Your task to perform on an android device: snooze an email in the gmail app Image 0: 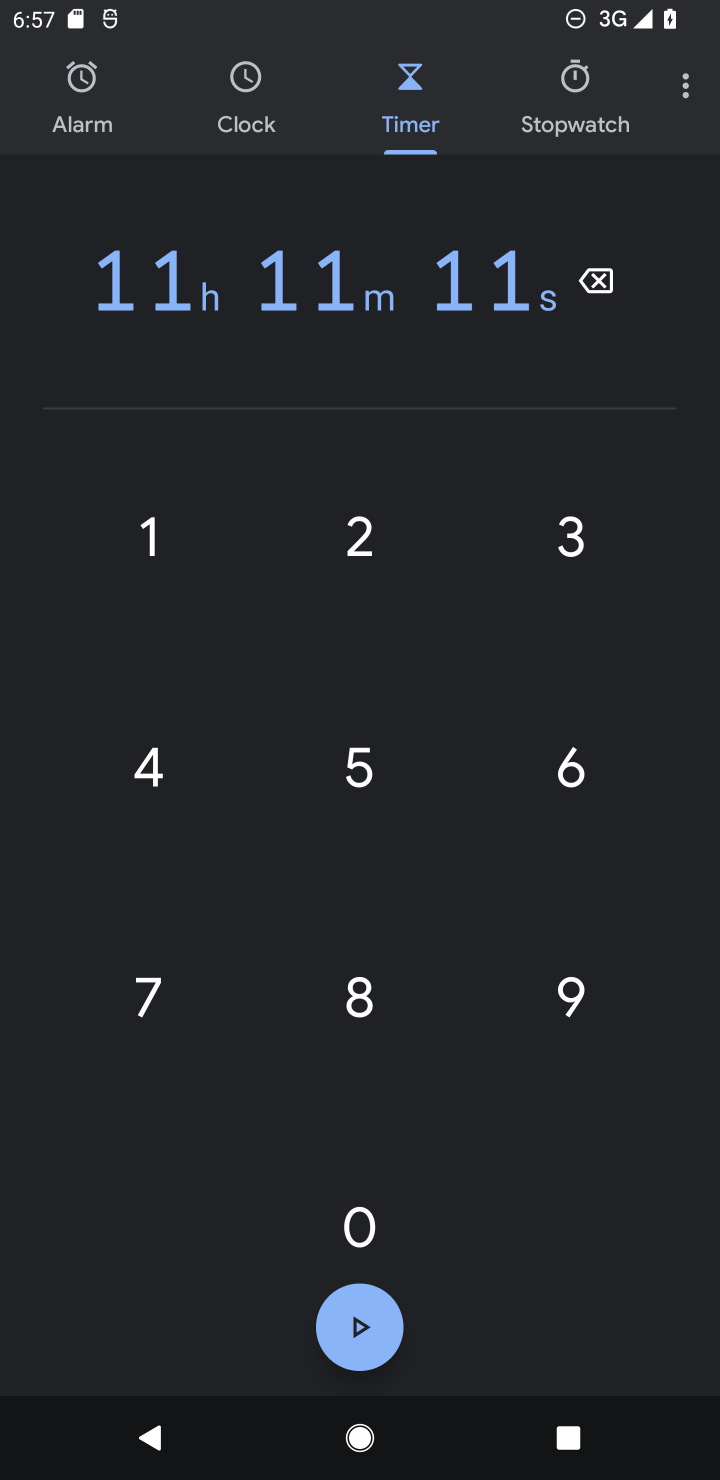
Step 0: press home button
Your task to perform on an android device: snooze an email in the gmail app Image 1: 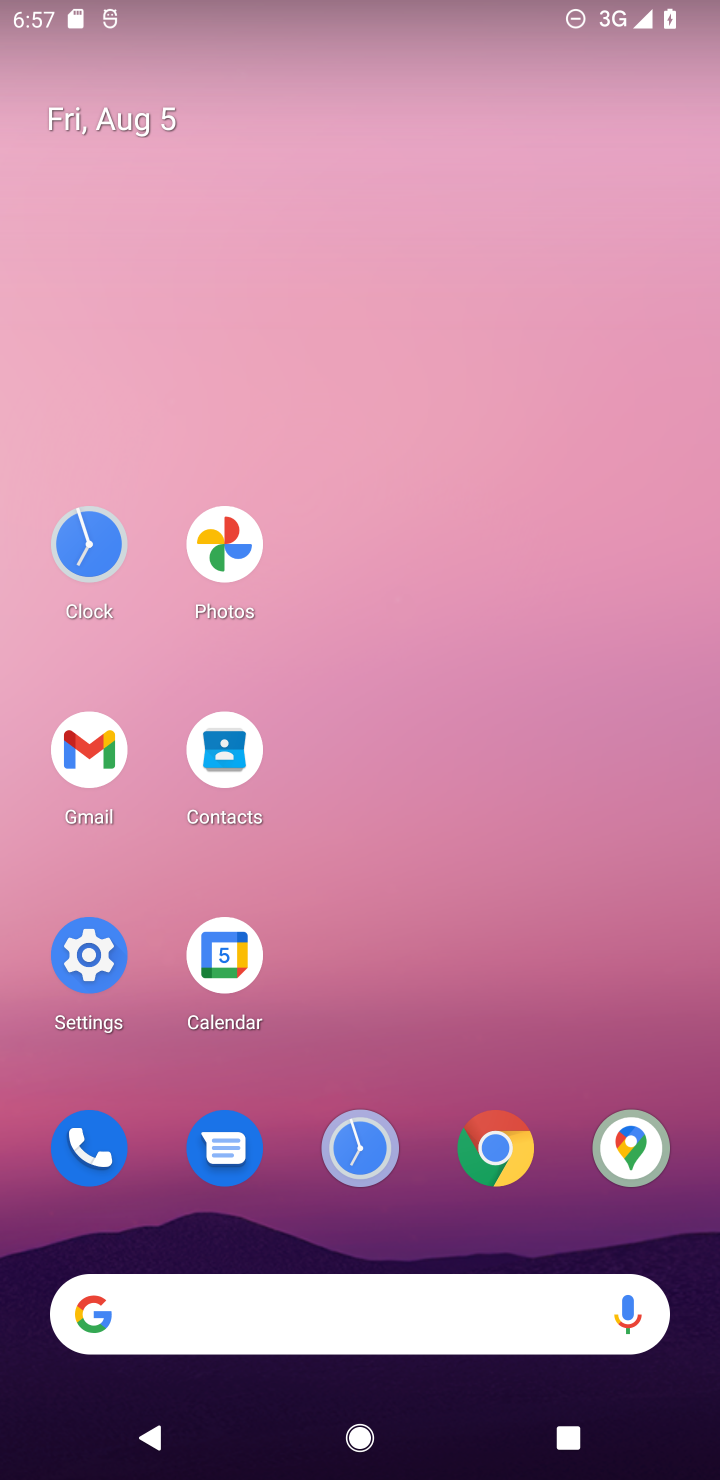
Step 1: click (94, 752)
Your task to perform on an android device: snooze an email in the gmail app Image 2: 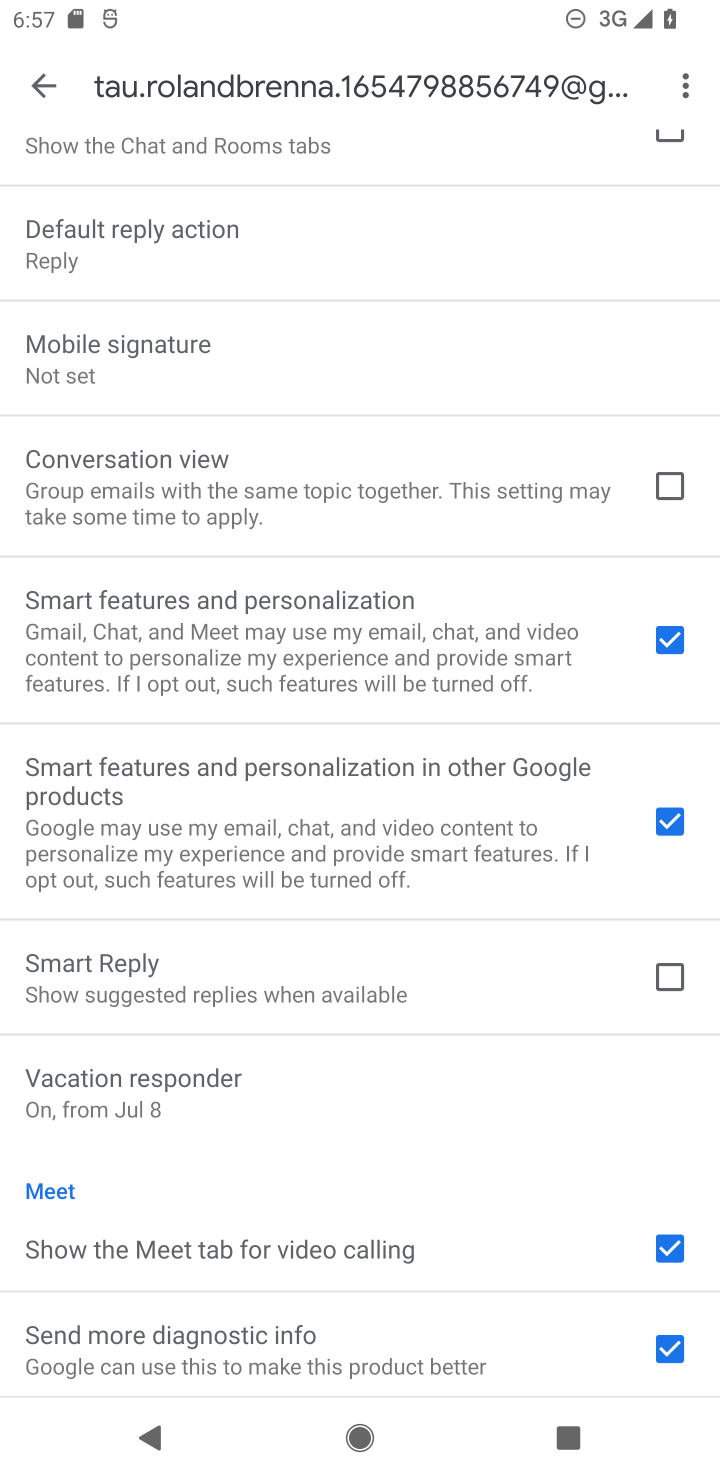
Step 2: click (36, 80)
Your task to perform on an android device: snooze an email in the gmail app Image 3: 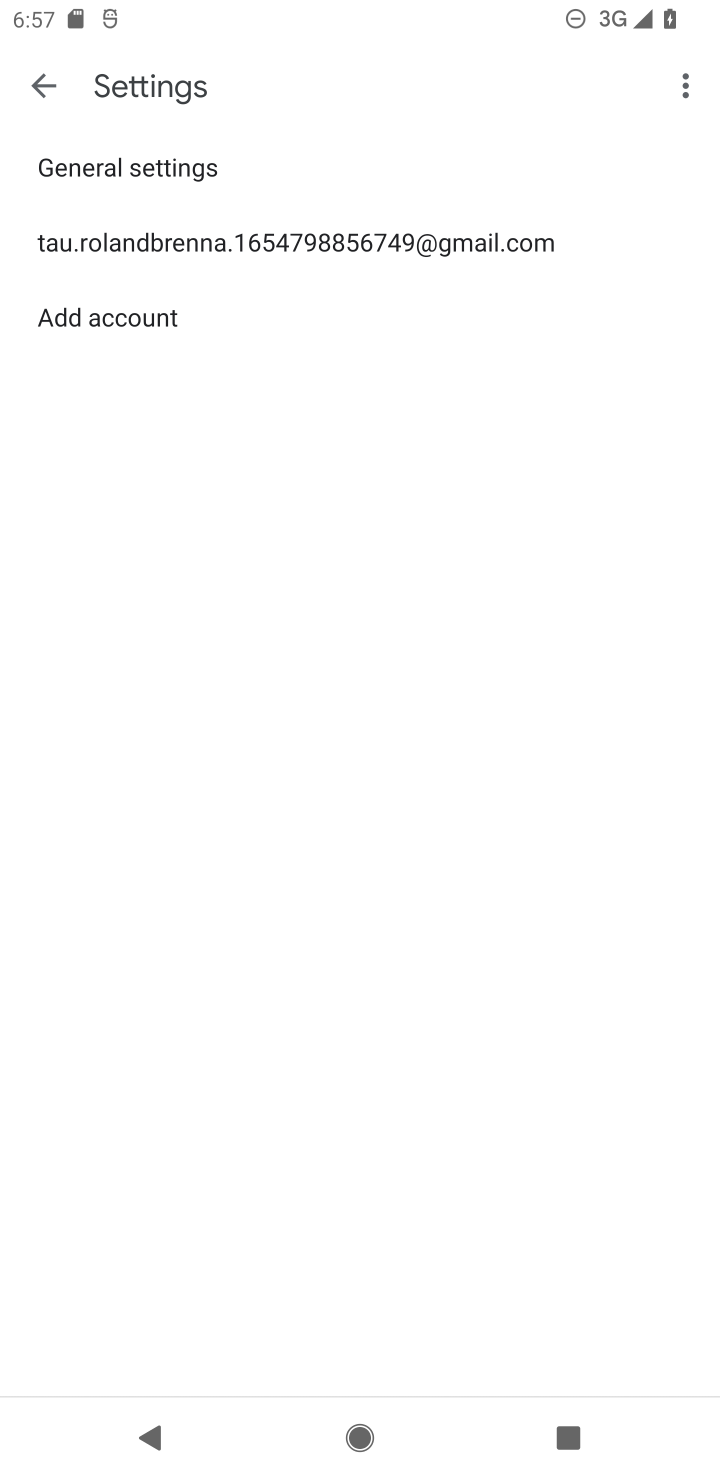
Step 3: click (48, 77)
Your task to perform on an android device: snooze an email in the gmail app Image 4: 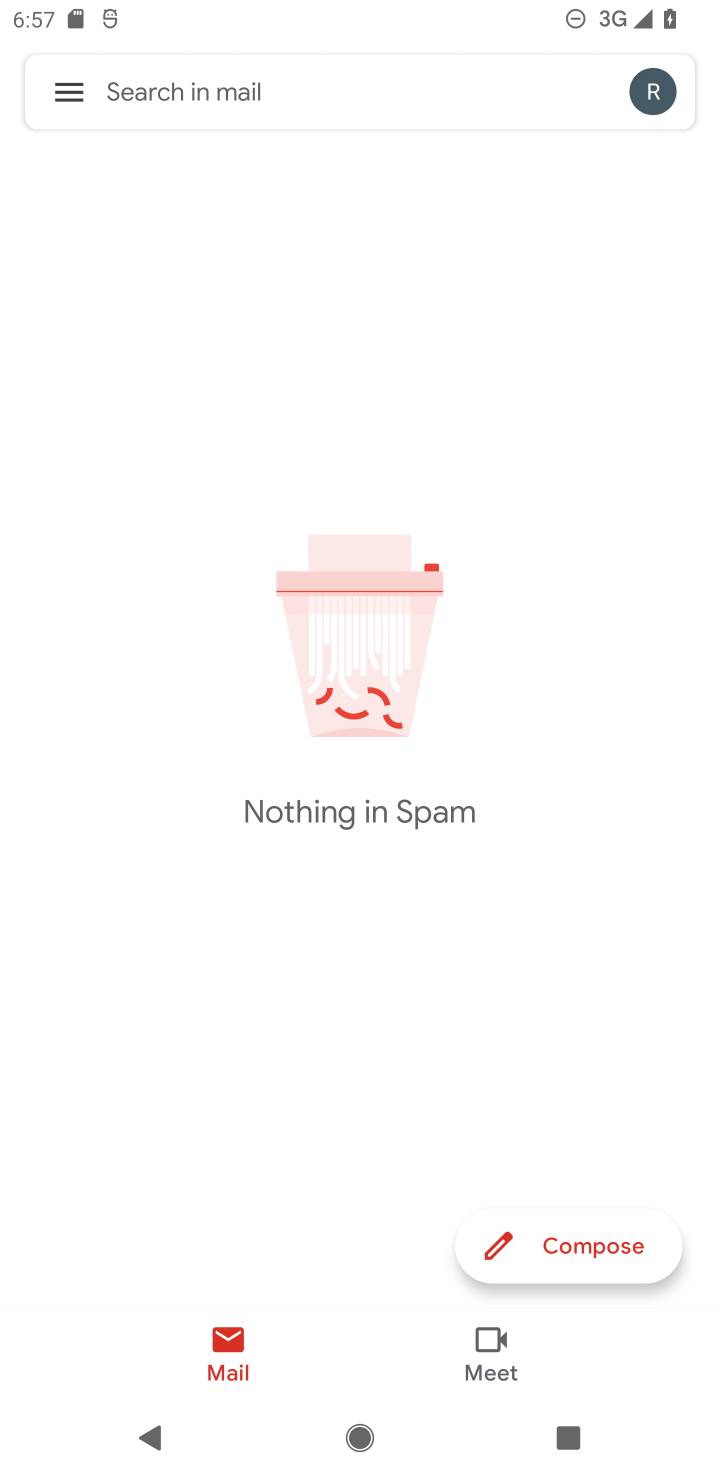
Step 4: click (63, 82)
Your task to perform on an android device: snooze an email in the gmail app Image 5: 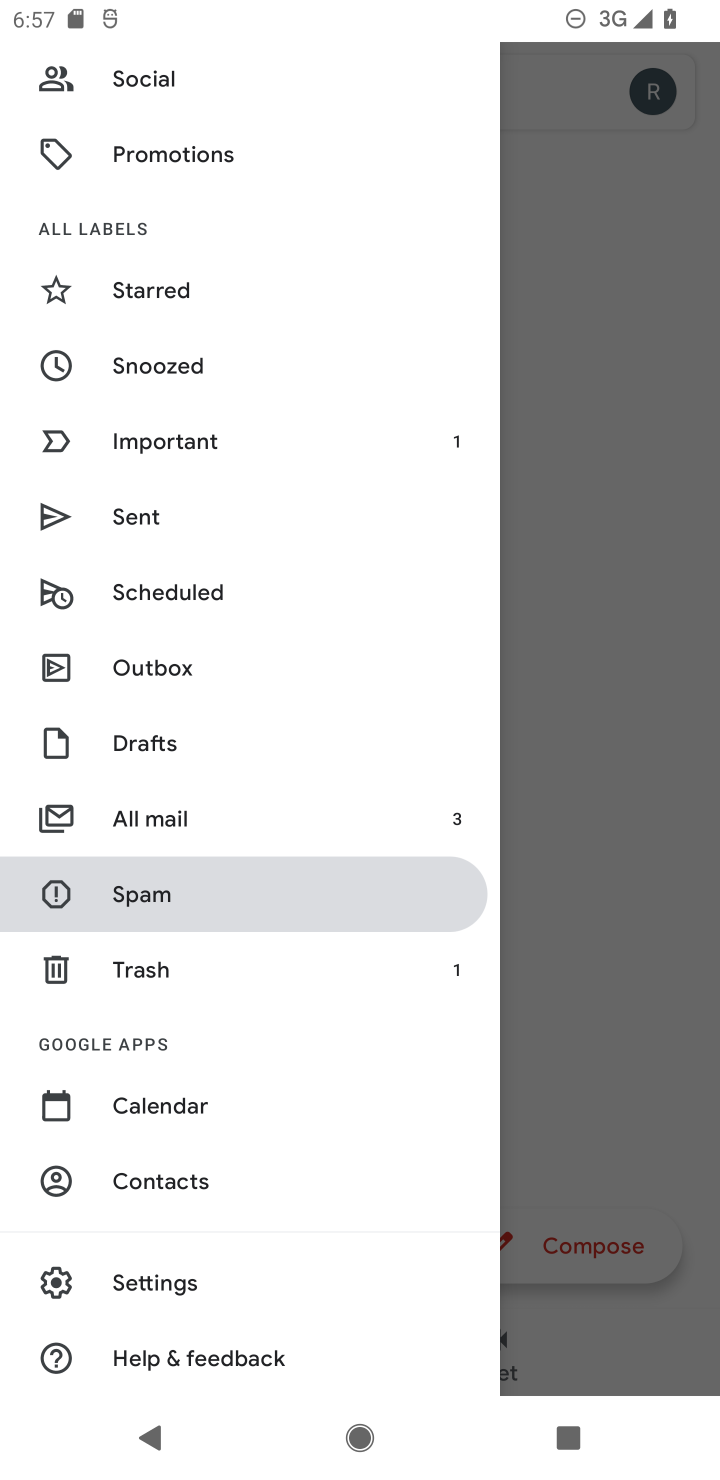
Step 5: click (186, 822)
Your task to perform on an android device: snooze an email in the gmail app Image 6: 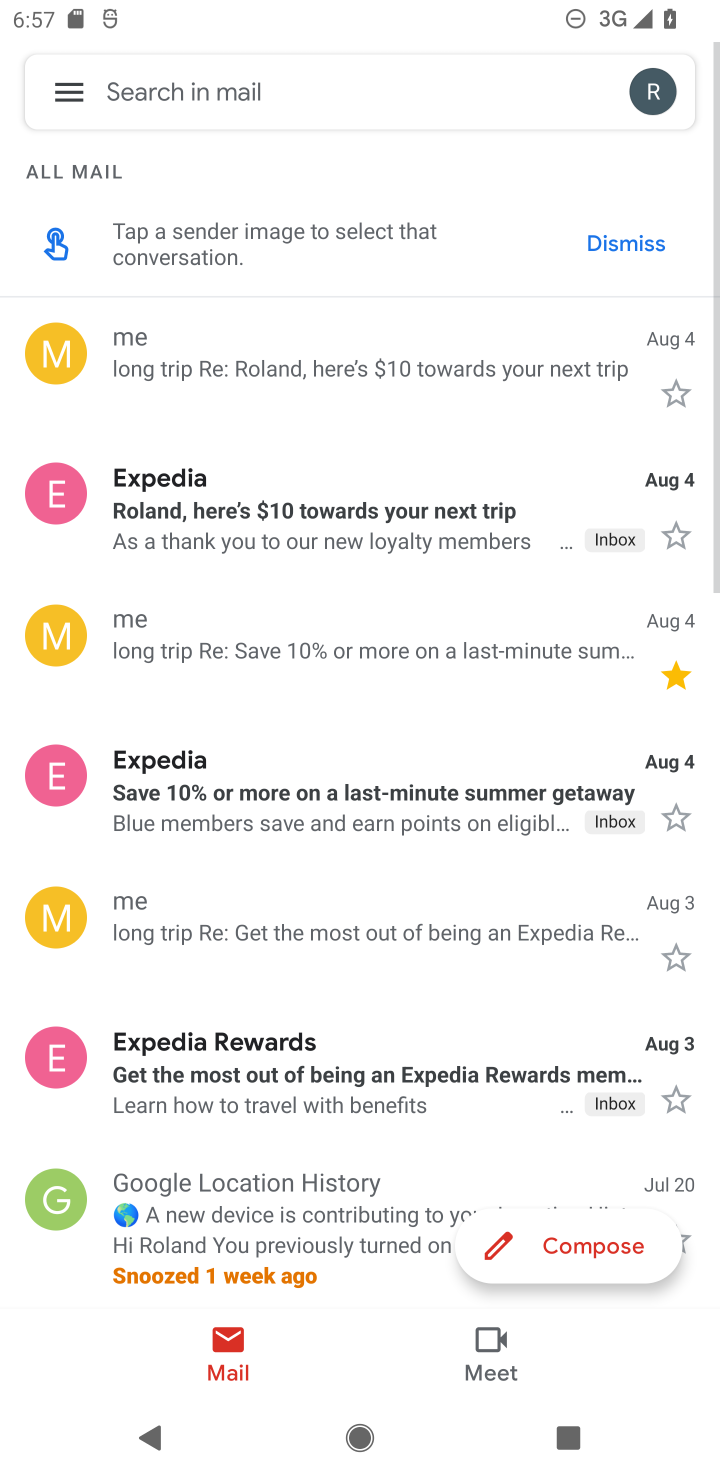
Step 6: click (451, 488)
Your task to perform on an android device: snooze an email in the gmail app Image 7: 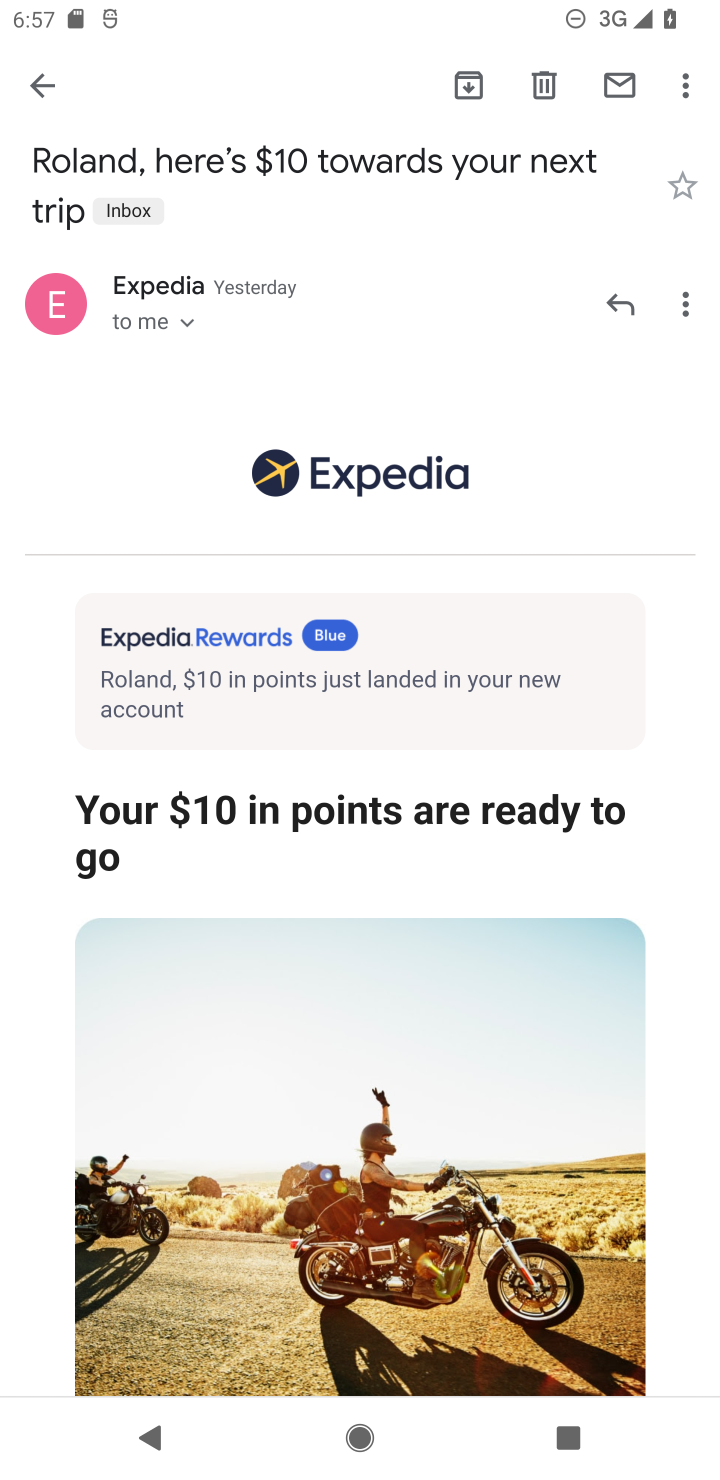
Step 7: click (682, 76)
Your task to perform on an android device: snooze an email in the gmail app Image 8: 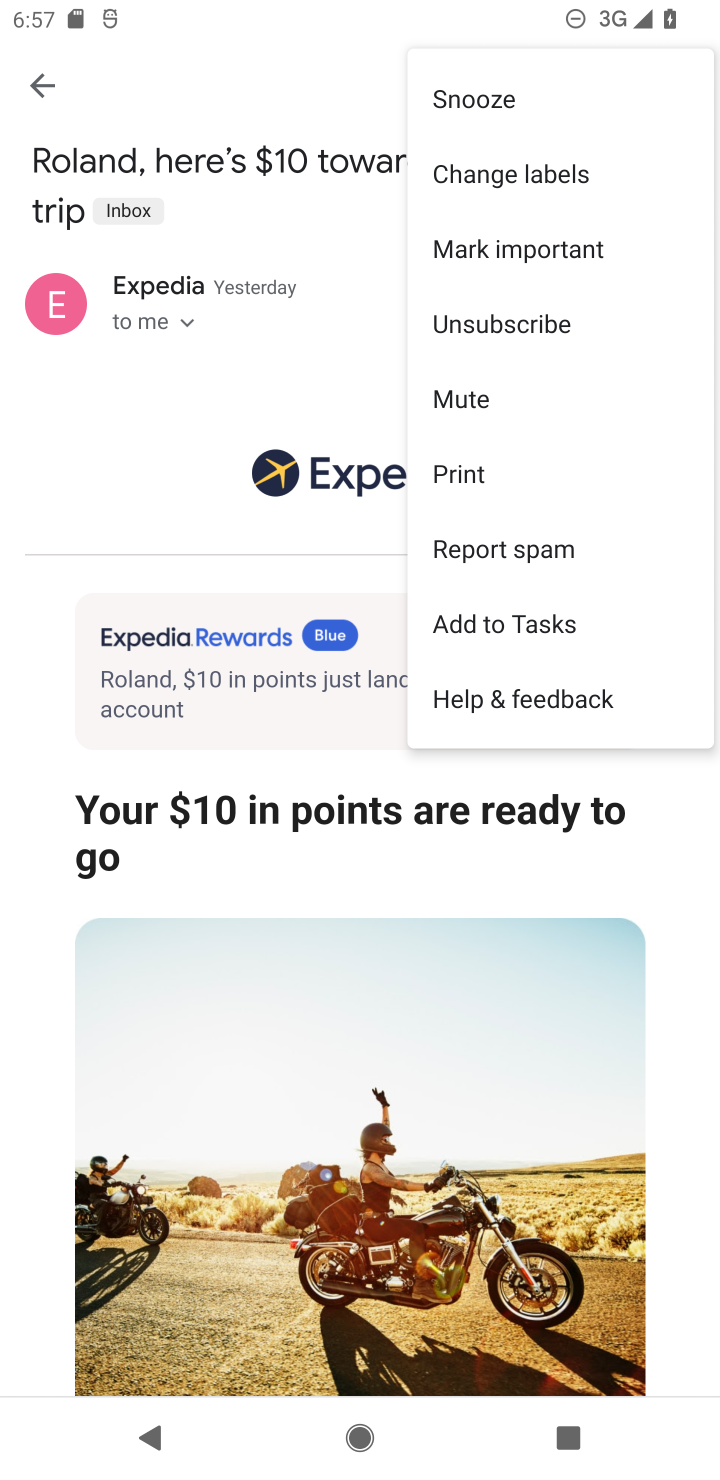
Step 8: click (469, 94)
Your task to perform on an android device: snooze an email in the gmail app Image 9: 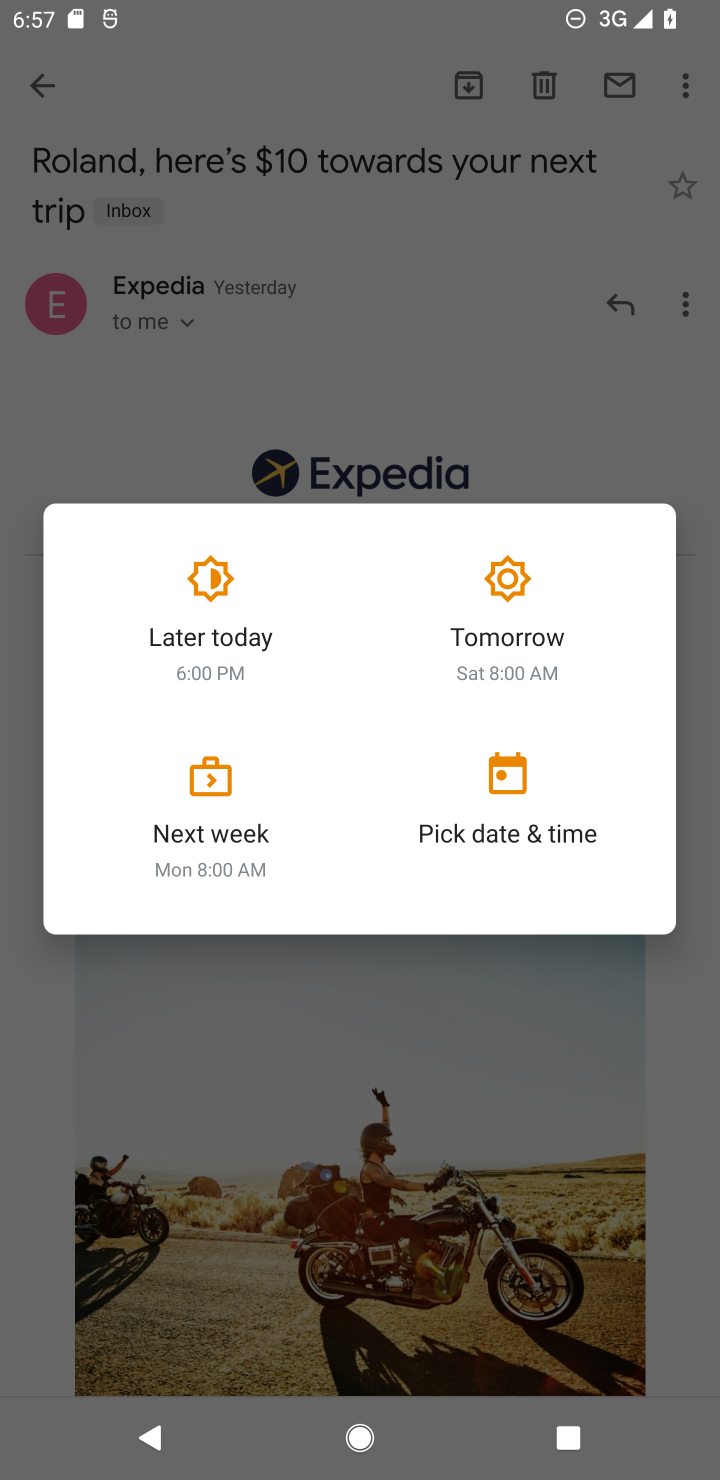
Step 9: click (238, 603)
Your task to perform on an android device: snooze an email in the gmail app Image 10: 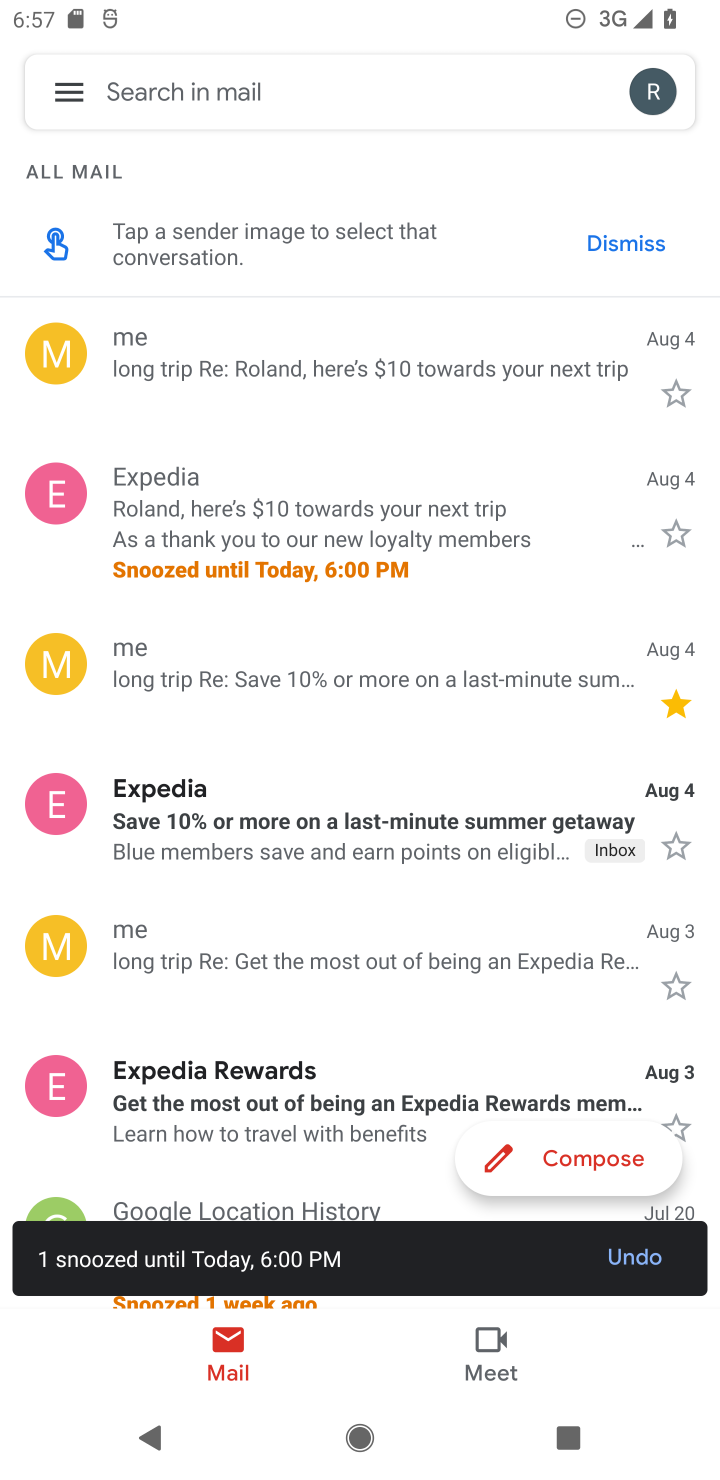
Step 10: task complete